Your task to perform on an android device: View the shopping cart on ebay. Image 0: 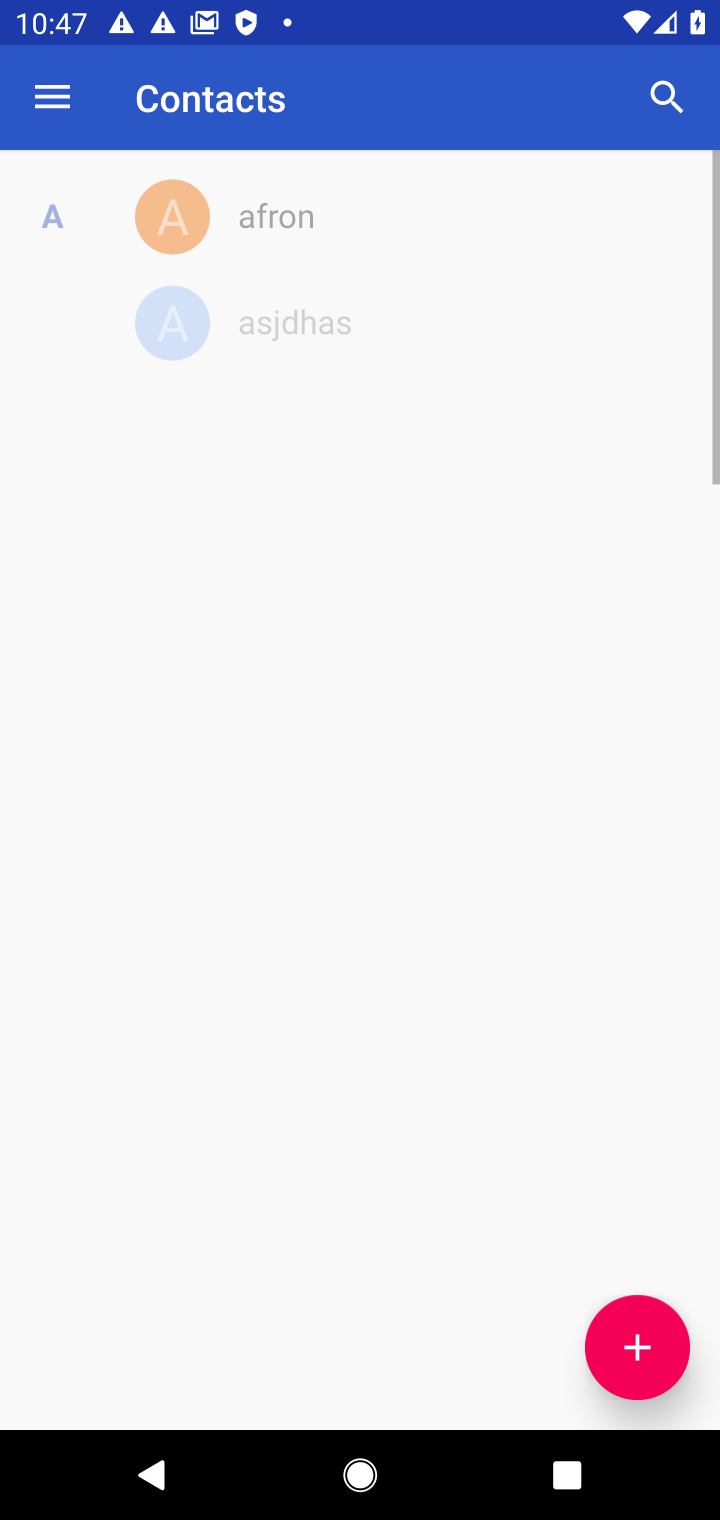
Step 0: click (360, 1347)
Your task to perform on an android device: View the shopping cart on ebay. Image 1: 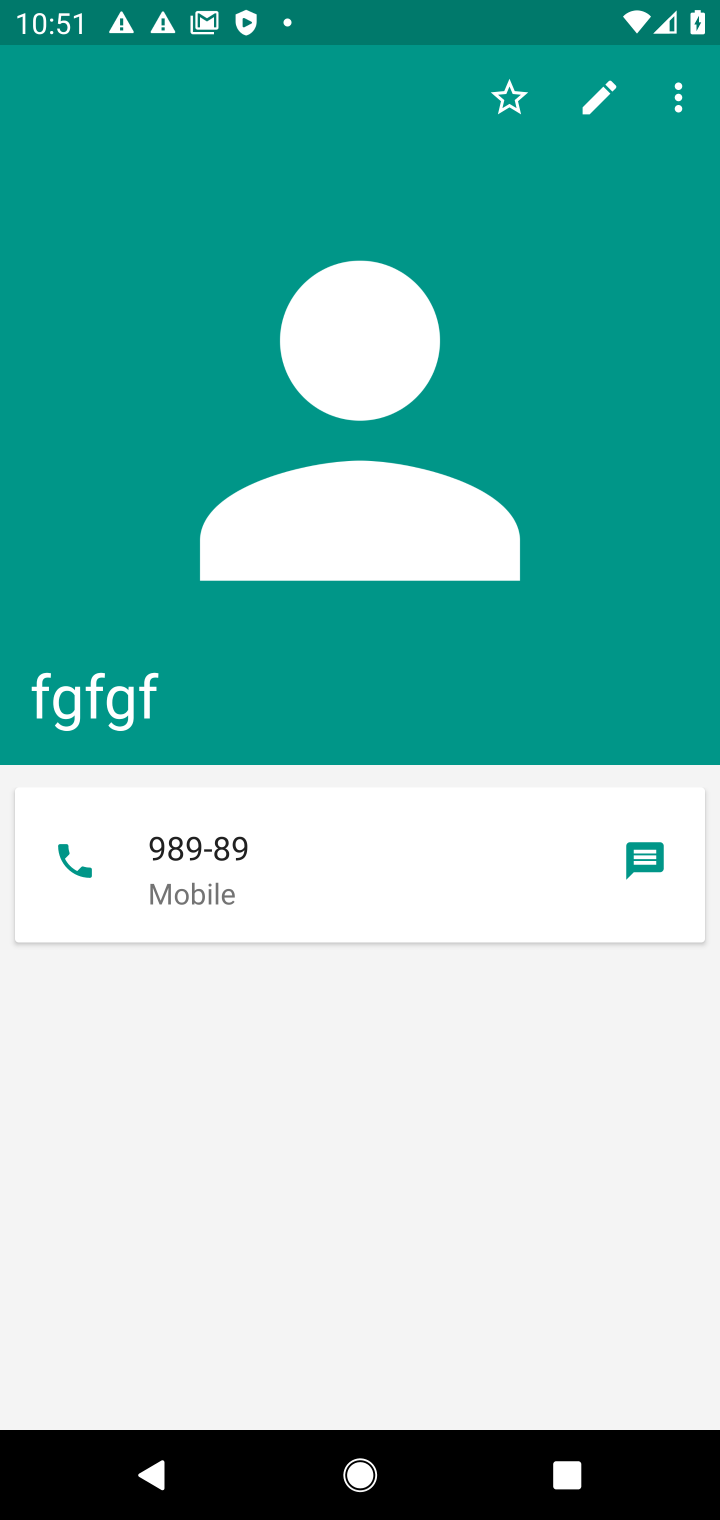
Step 1: press home button
Your task to perform on an android device: View the shopping cart on ebay. Image 2: 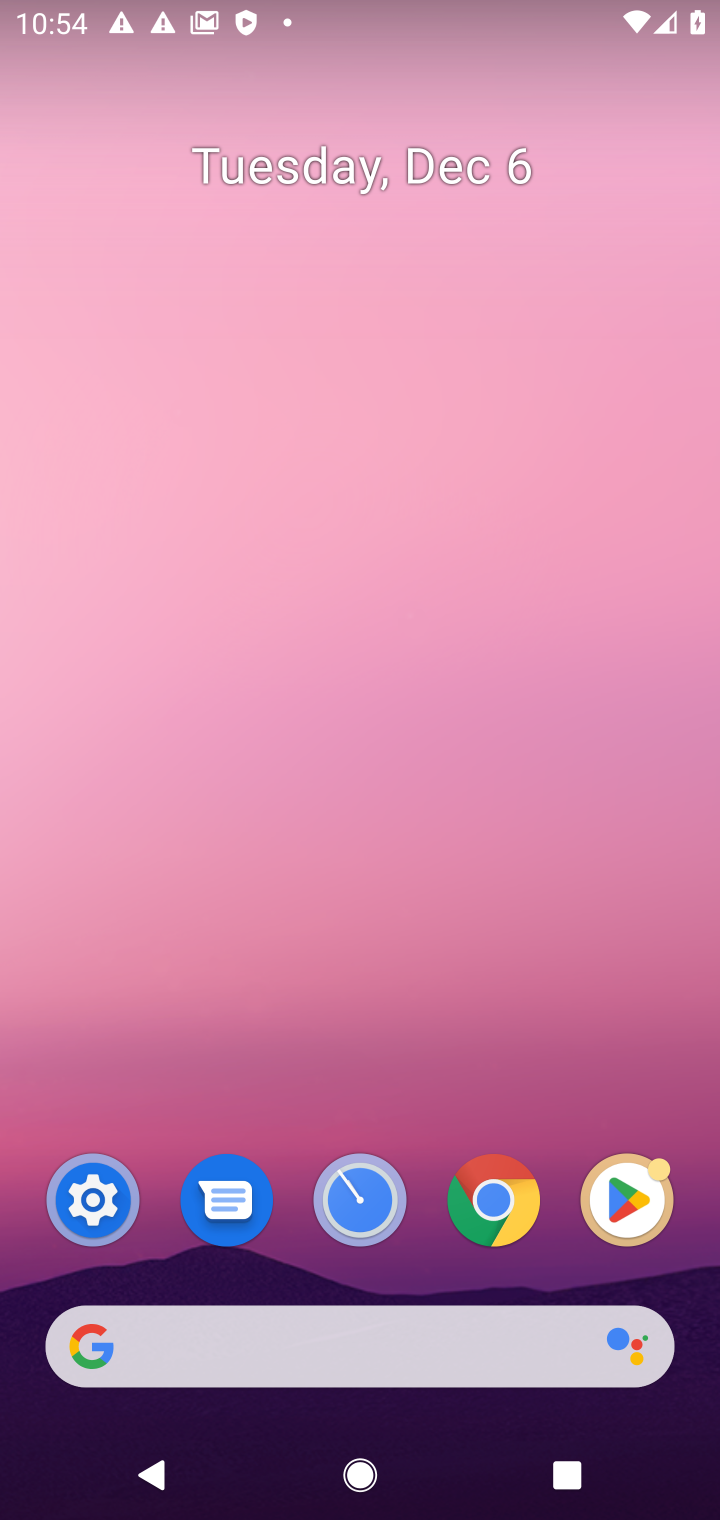
Step 2: click (323, 1376)
Your task to perform on an android device: View the shopping cart on ebay. Image 3: 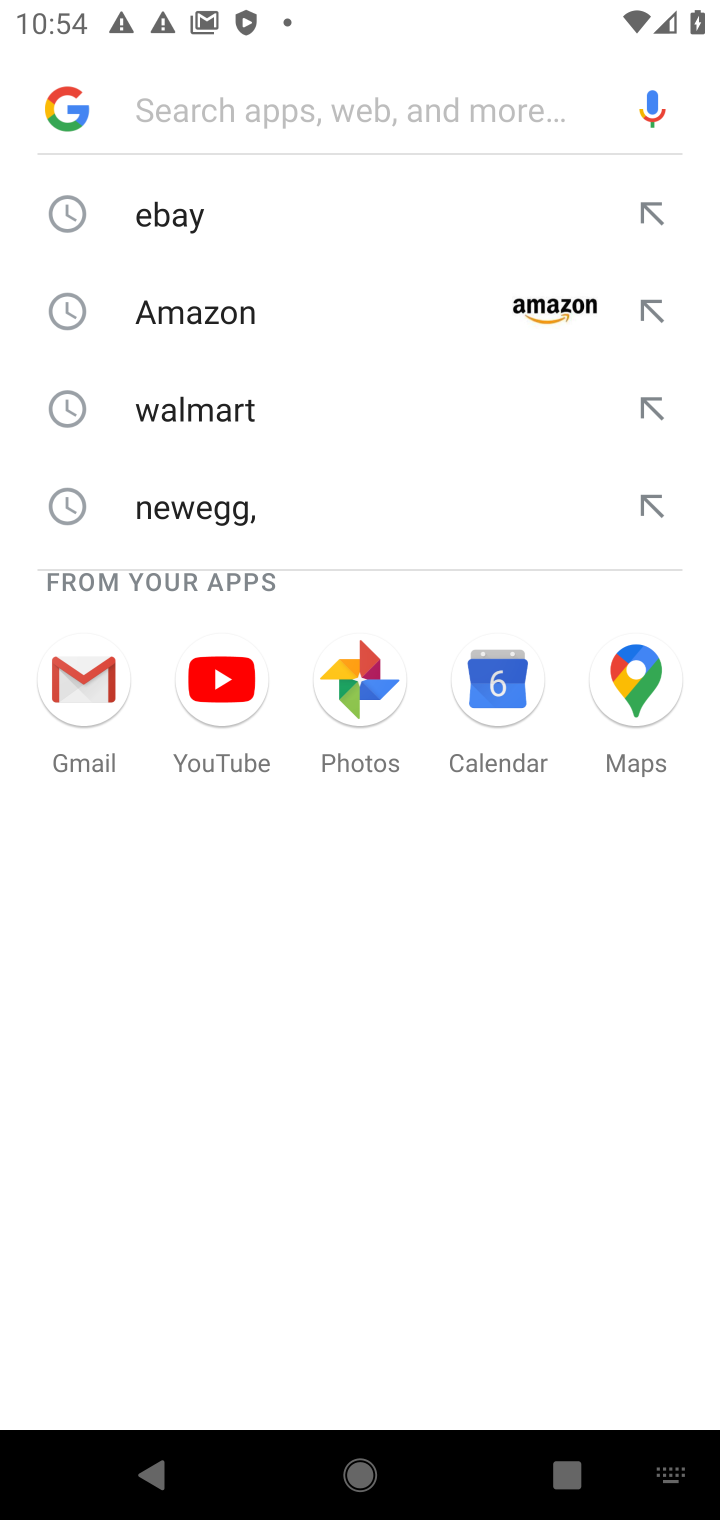
Step 3: type "ebay.com"
Your task to perform on an android device: View the shopping cart on ebay. Image 4: 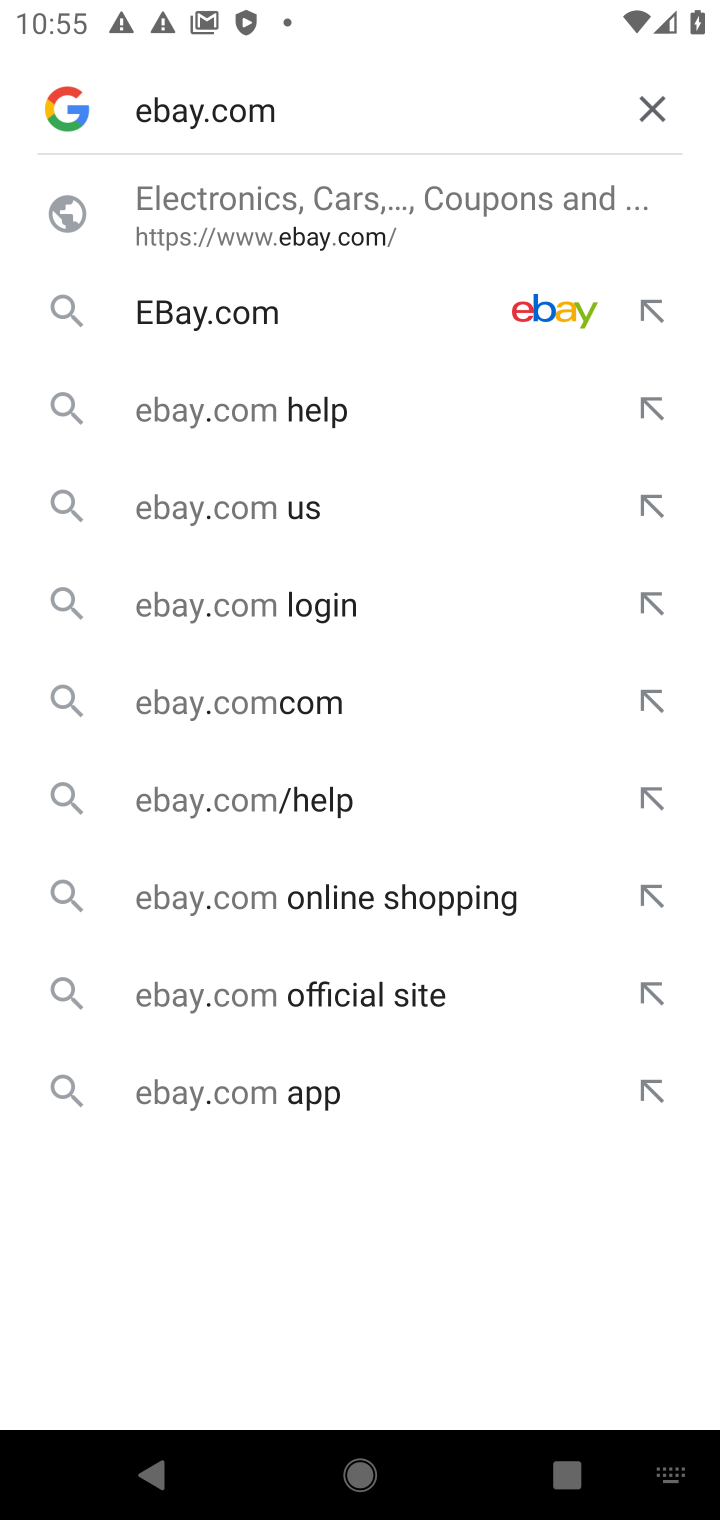
Step 4: click (458, 324)
Your task to perform on an android device: View the shopping cart on ebay. Image 5: 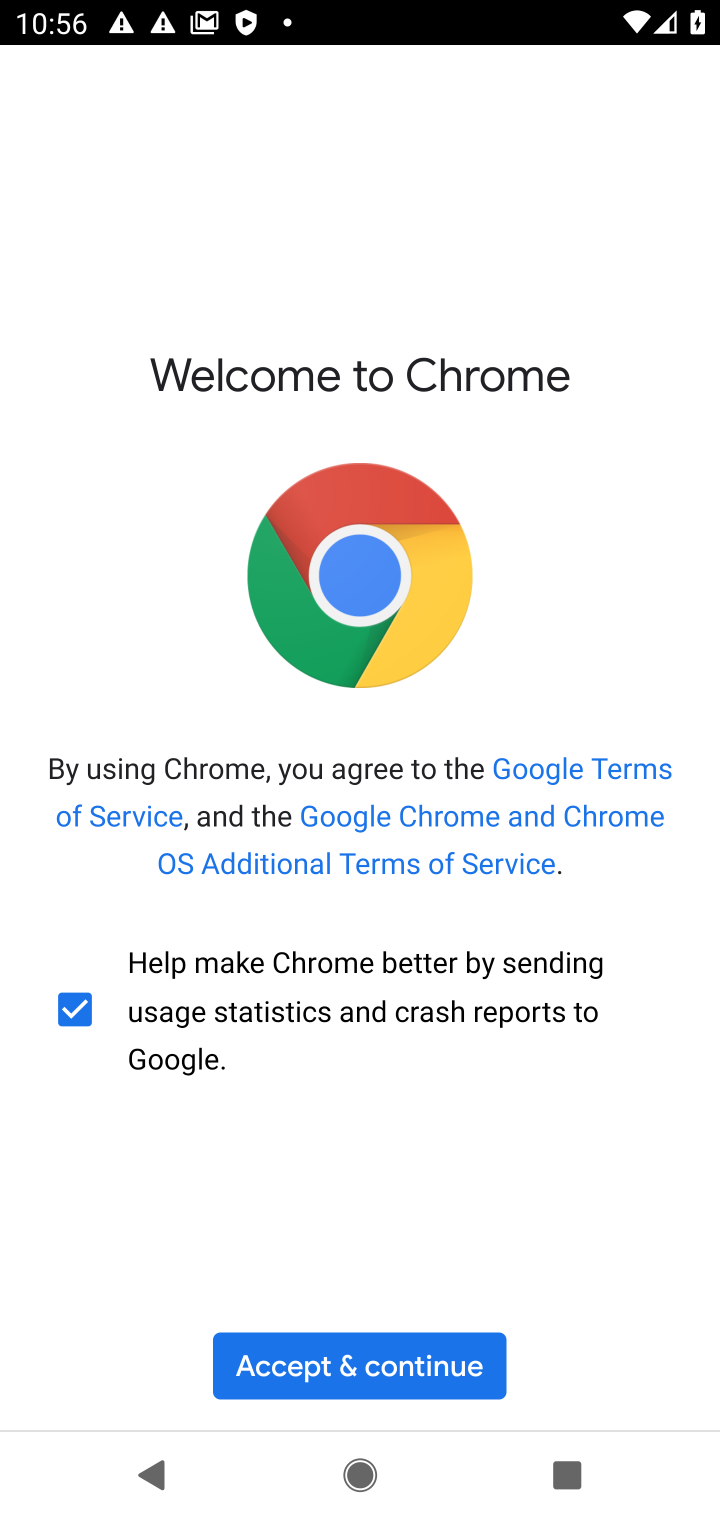
Step 5: click (315, 1368)
Your task to perform on an android device: View the shopping cart on ebay. Image 6: 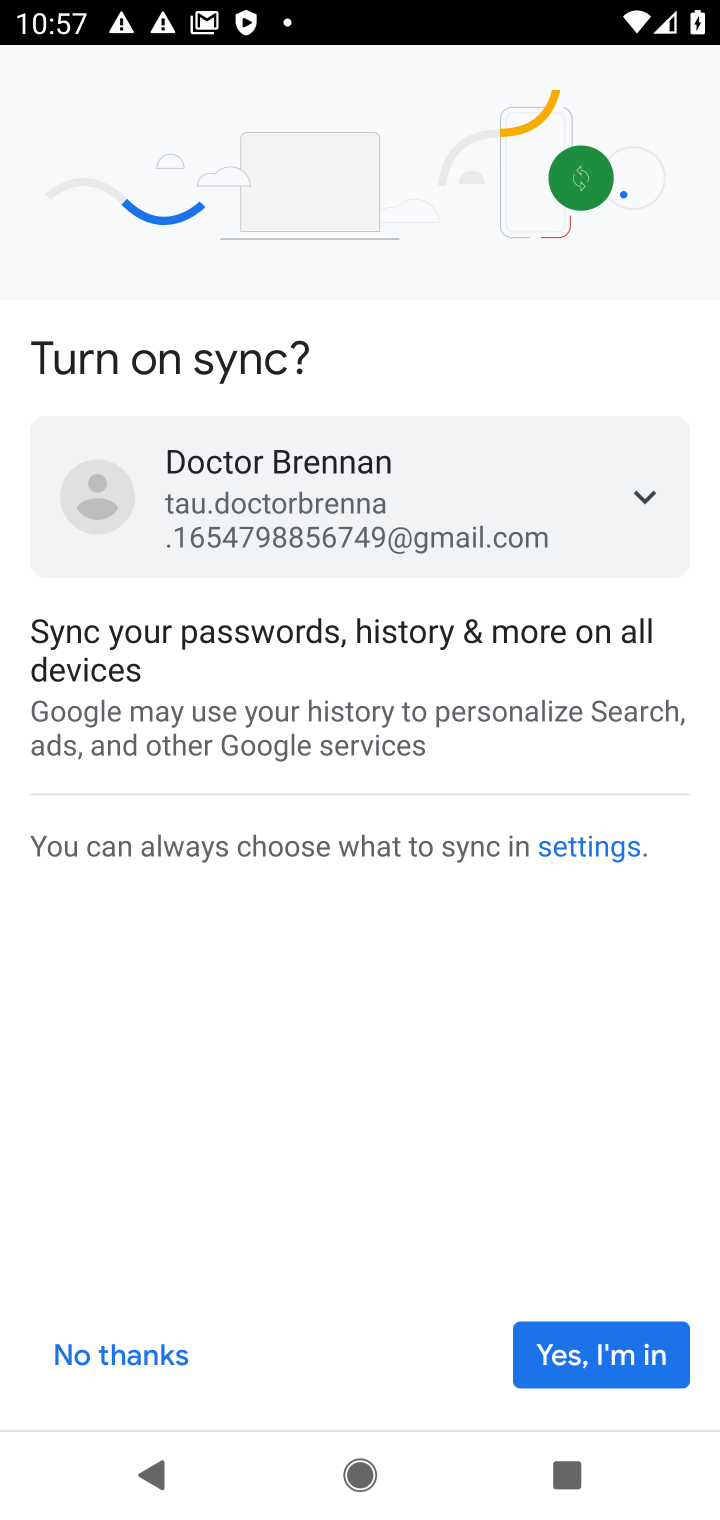
Step 6: click (520, 1368)
Your task to perform on an android device: View the shopping cart on ebay. Image 7: 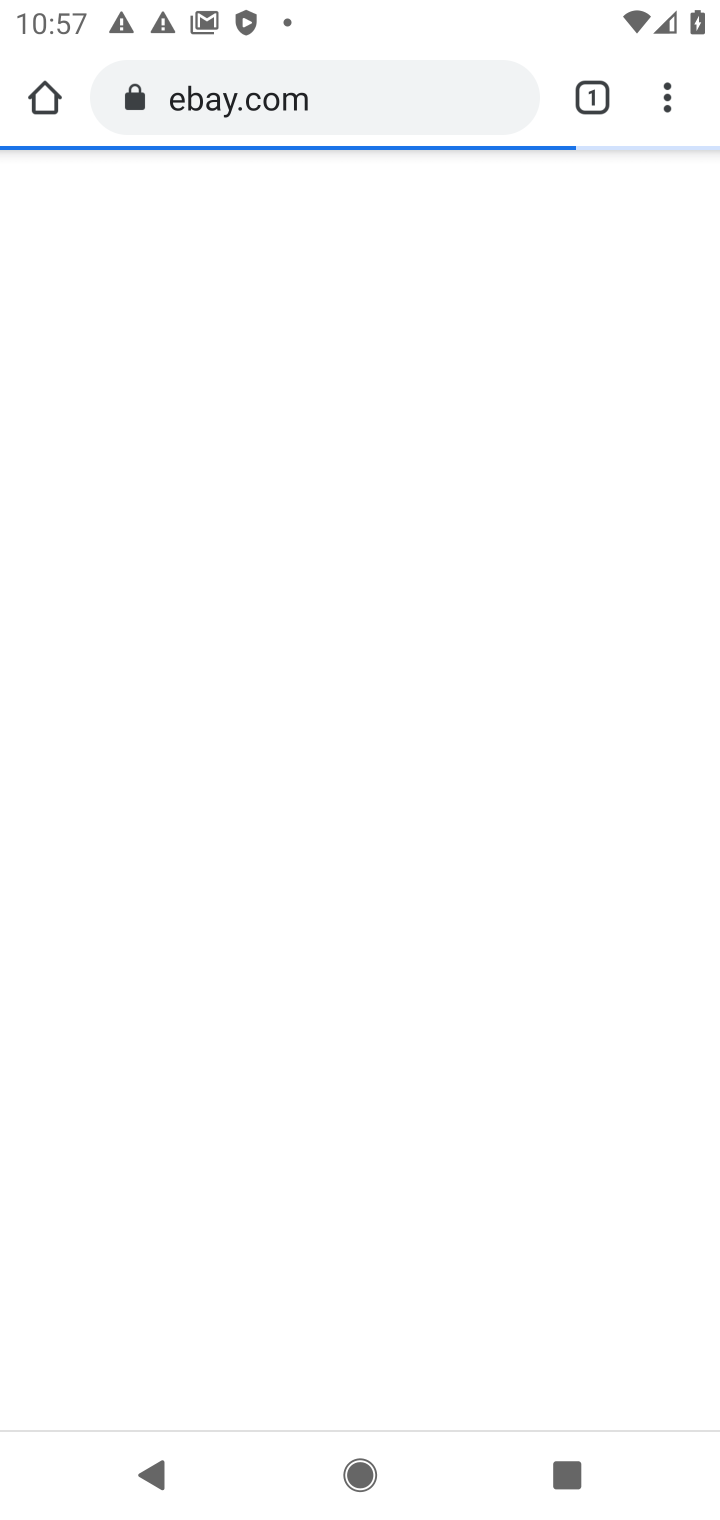
Step 7: task complete